Your task to perform on an android device: see sites visited before in the chrome app Image 0: 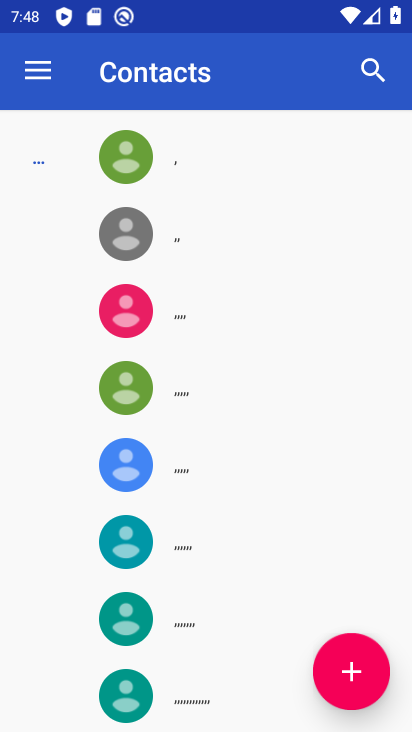
Step 0: press home button
Your task to perform on an android device: see sites visited before in the chrome app Image 1: 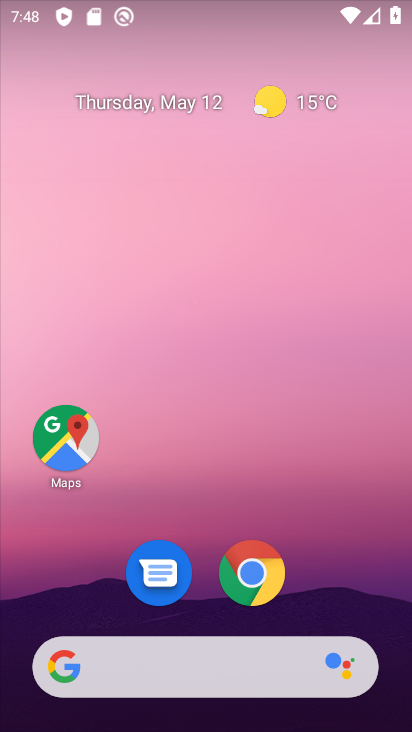
Step 1: click (242, 578)
Your task to perform on an android device: see sites visited before in the chrome app Image 2: 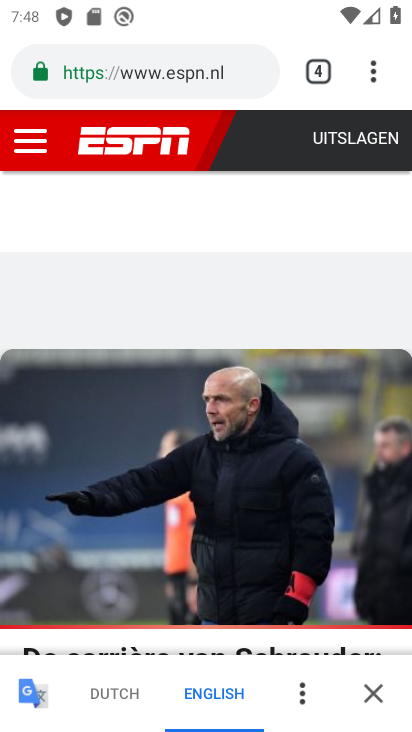
Step 2: click (372, 68)
Your task to perform on an android device: see sites visited before in the chrome app Image 3: 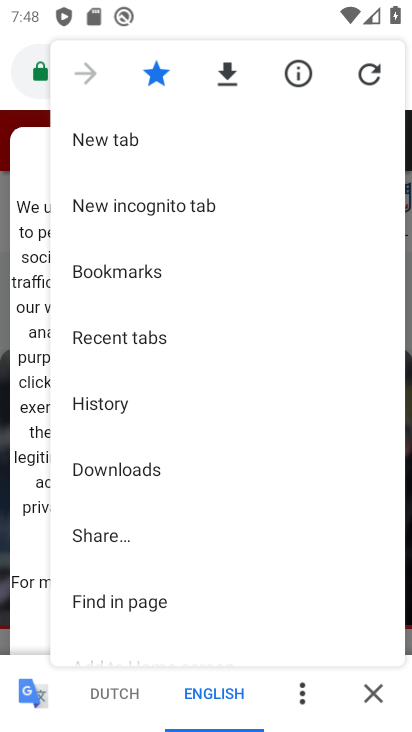
Step 3: click (111, 401)
Your task to perform on an android device: see sites visited before in the chrome app Image 4: 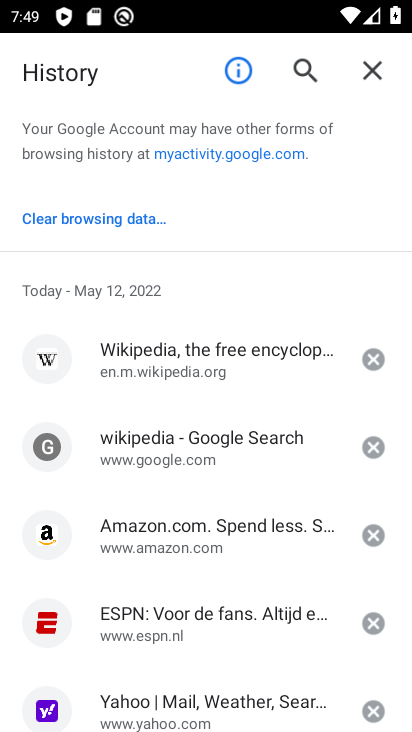
Step 4: task complete